Your task to perform on an android device: toggle pop-ups in chrome Image 0: 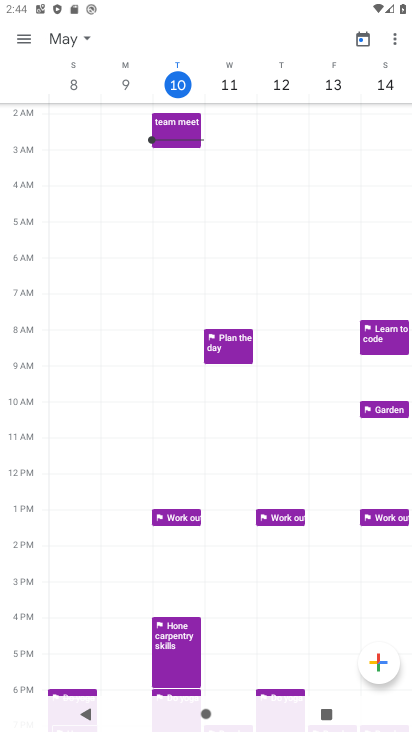
Step 0: press home button
Your task to perform on an android device: toggle pop-ups in chrome Image 1: 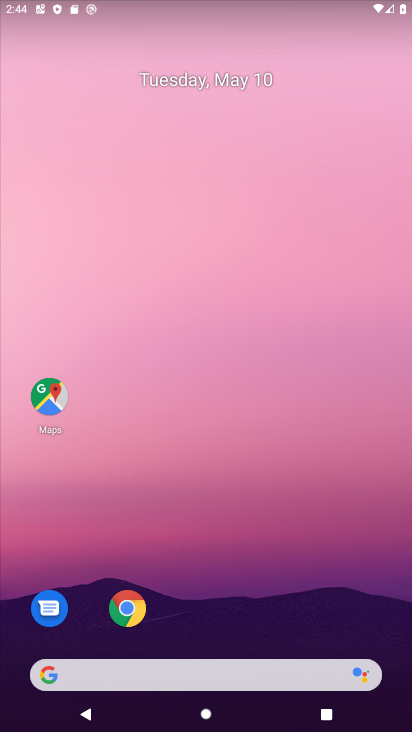
Step 1: click (118, 609)
Your task to perform on an android device: toggle pop-ups in chrome Image 2: 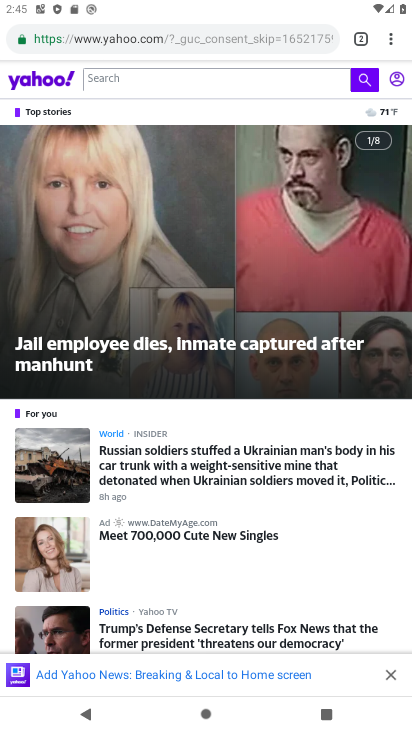
Step 2: click (390, 41)
Your task to perform on an android device: toggle pop-ups in chrome Image 3: 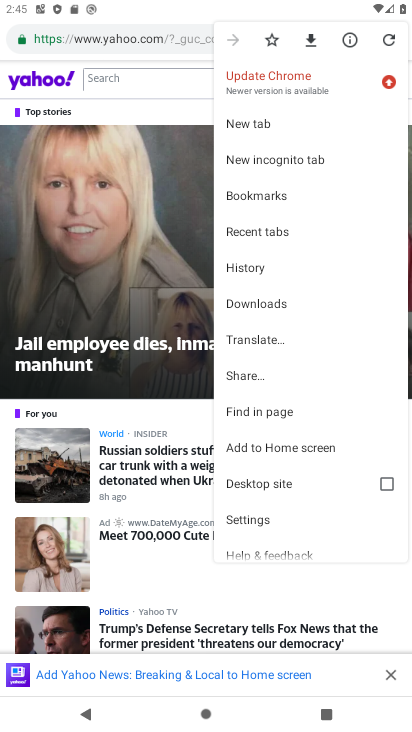
Step 3: click (253, 511)
Your task to perform on an android device: toggle pop-ups in chrome Image 4: 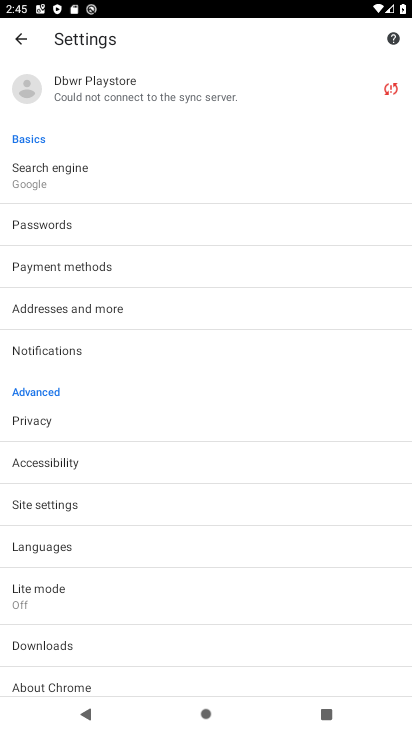
Step 4: click (45, 500)
Your task to perform on an android device: toggle pop-ups in chrome Image 5: 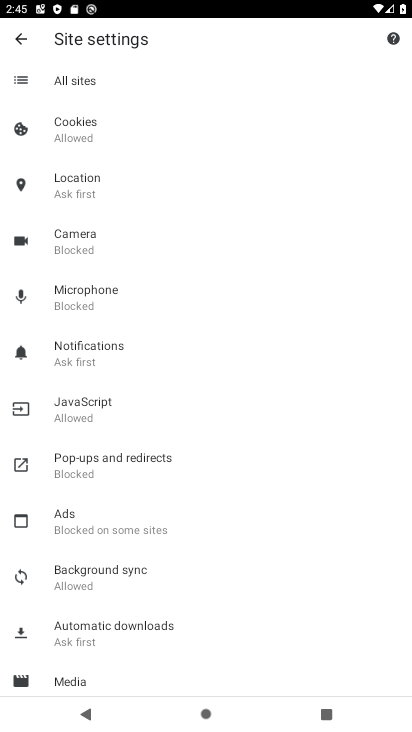
Step 5: click (116, 461)
Your task to perform on an android device: toggle pop-ups in chrome Image 6: 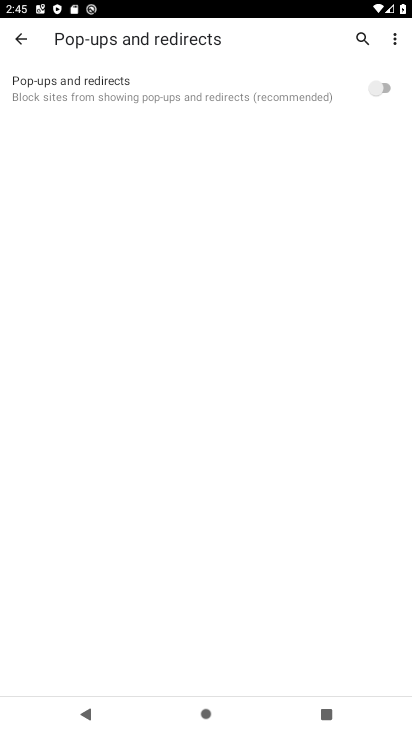
Step 6: click (389, 81)
Your task to perform on an android device: toggle pop-ups in chrome Image 7: 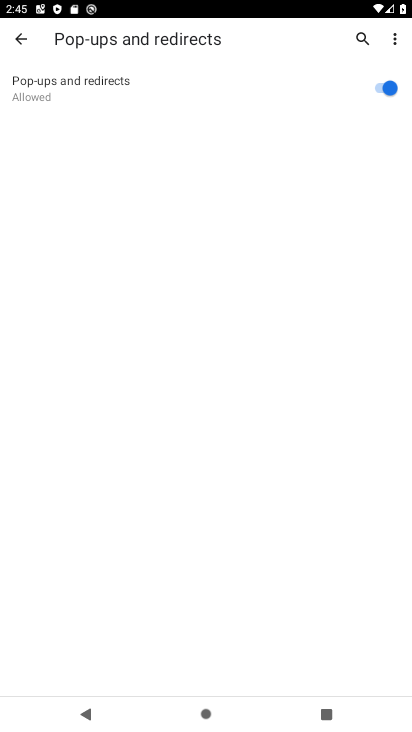
Step 7: task complete